Your task to perform on an android device: Open Google Maps and go to "Timeline" Image 0: 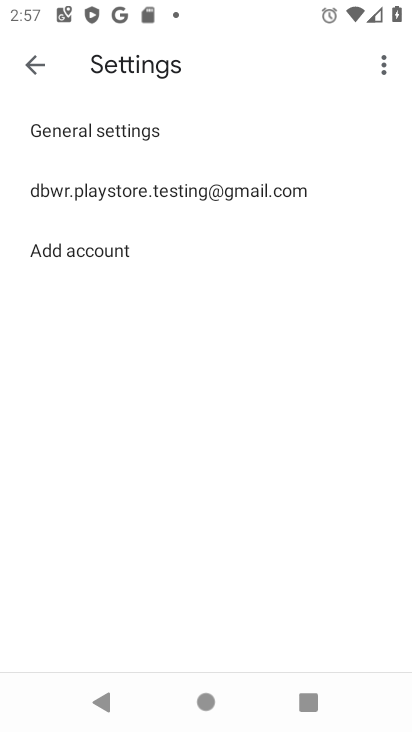
Step 0: press home button
Your task to perform on an android device: Open Google Maps and go to "Timeline" Image 1: 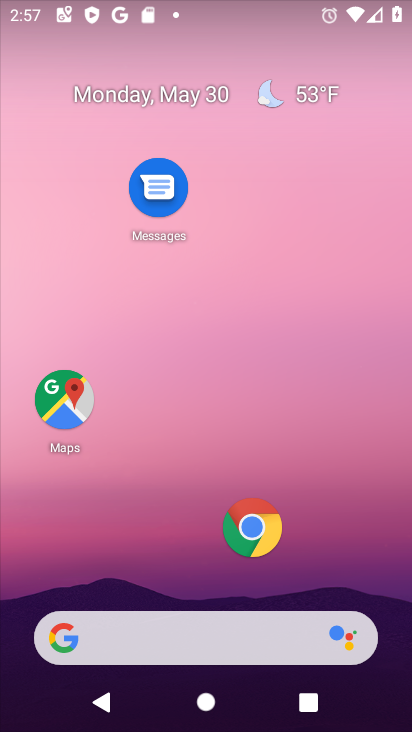
Step 1: drag from (194, 535) to (288, 178)
Your task to perform on an android device: Open Google Maps and go to "Timeline" Image 2: 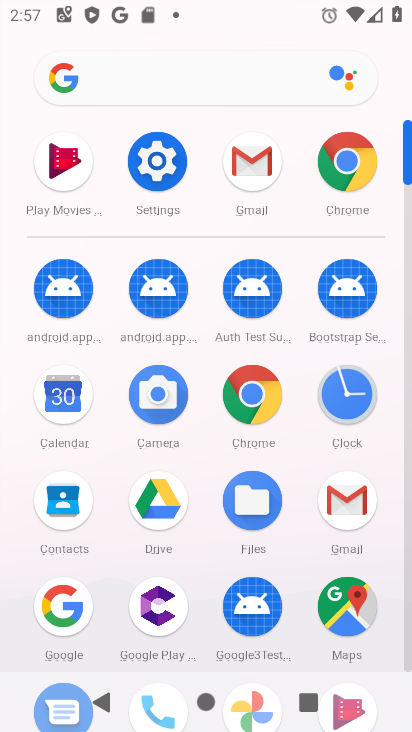
Step 2: click (369, 616)
Your task to perform on an android device: Open Google Maps and go to "Timeline" Image 3: 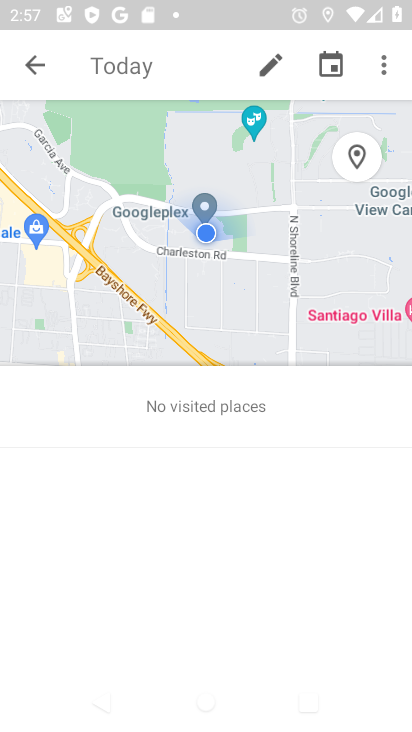
Step 3: press back button
Your task to perform on an android device: Open Google Maps and go to "Timeline" Image 4: 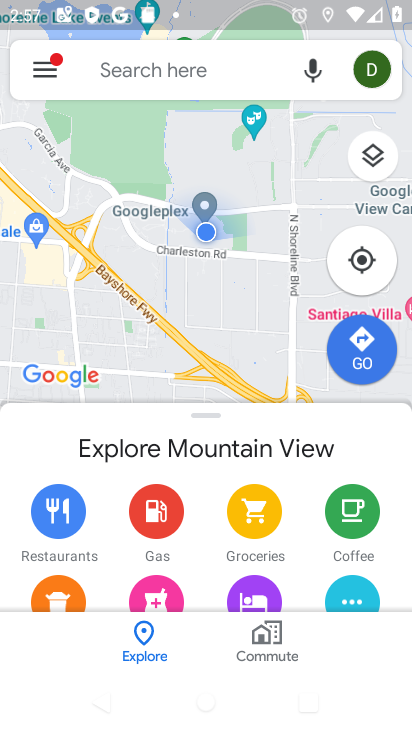
Step 4: click (43, 45)
Your task to perform on an android device: Open Google Maps and go to "Timeline" Image 5: 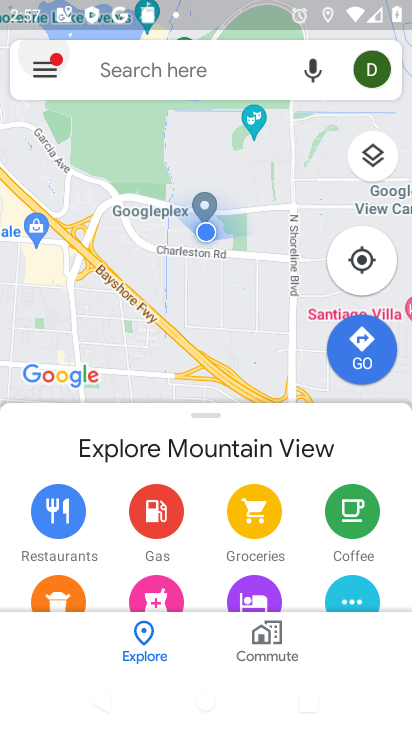
Step 5: click (46, 62)
Your task to perform on an android device: Open Google Maps and go to "Timeline" Image 6: 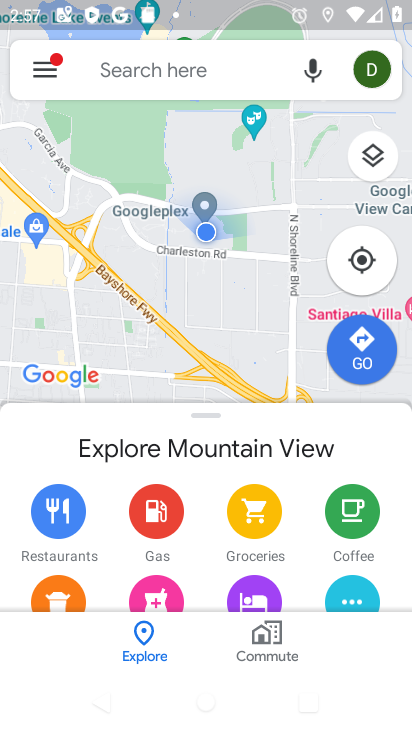
Step 6: click (46, 62)
Your task to perform on an android device: Open Google Maps and go to "Timeline" Image 7: 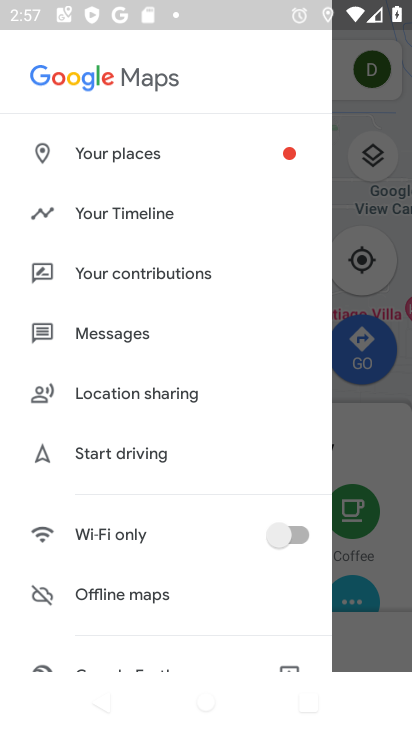
Step 7: click (129, 220)
Your task to perform on an android device: Open Google Maps and go to "Timeline" Image 8: 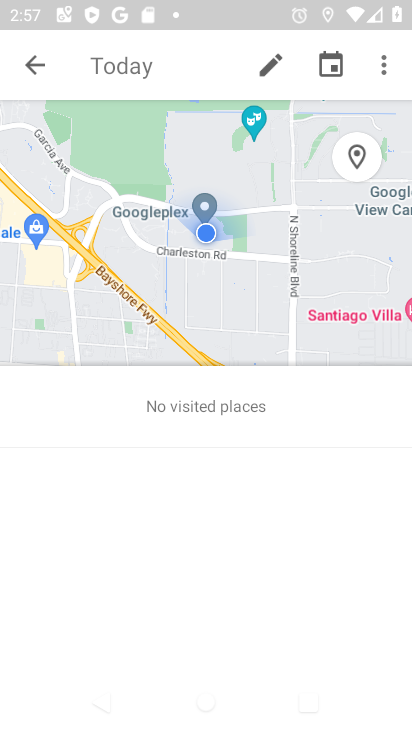
Step 8: task complete